Your task to perform on an android device: create a new album in the google photos Image 0: 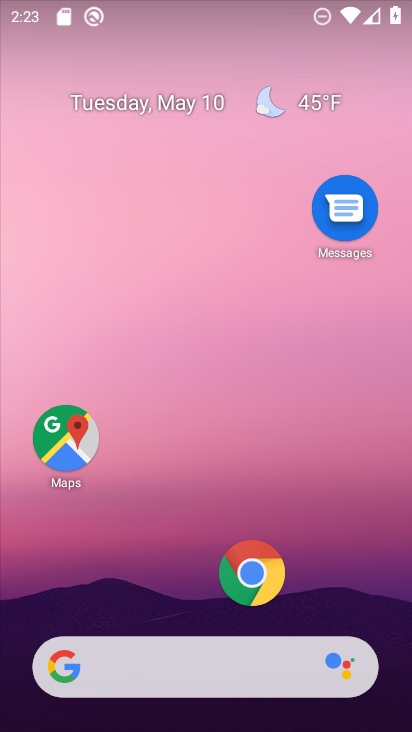
Step 0: drag from (226, 634) to (235, 239)
Your task to perform on an android device: create a new album in the google photos Image 1: 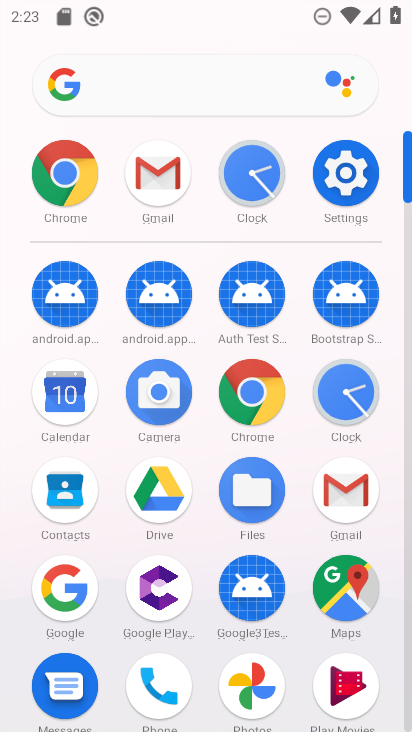
Step 1: drag from (205, 716) to (220, 306)
Your task to perform on an android device: create a new album in the google photos Image 2: 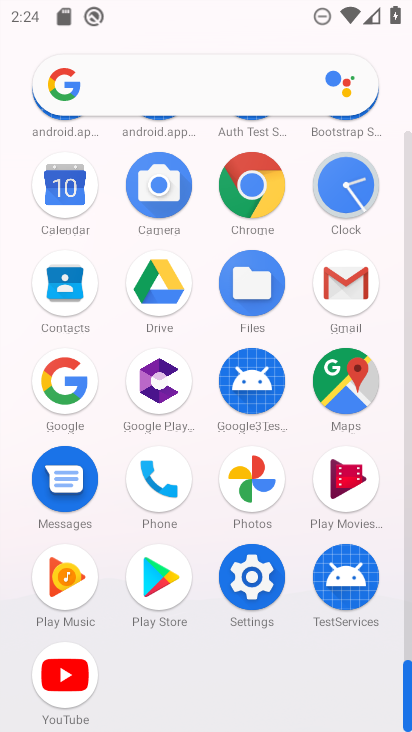
Step 2: click (257, 484)
Your task to perform on an android device: create a new album in the google photos Image 3: 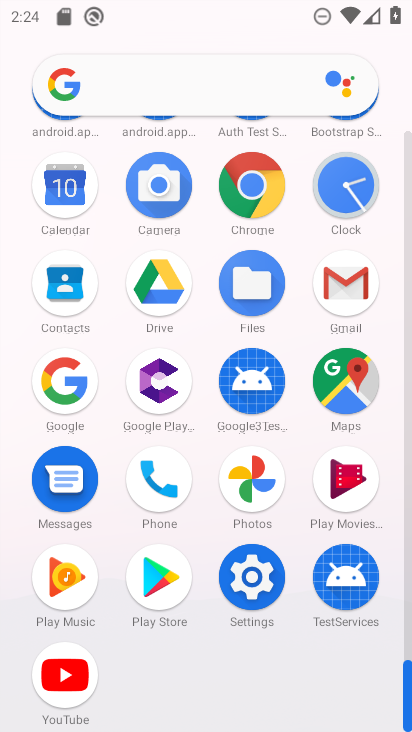
Step 3: click (257, 484)
Your task to perform on an android device: create a new album in the google photos Image 4: 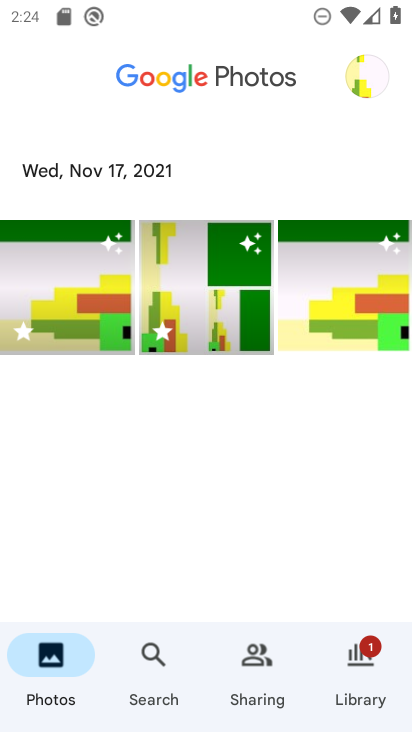
Step 4: click (357, 656)
Your task to perform on an android device: create a new album in the google photos Image 5: 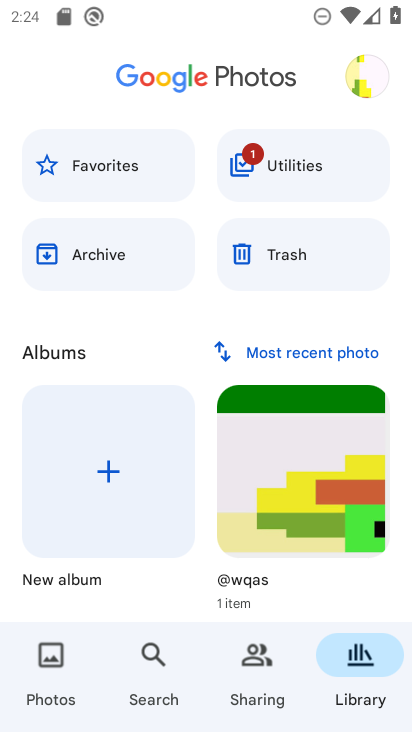
Step 5: click (99, 472)
Your task to perform on an android device: create a new album in the google photos Image 6: 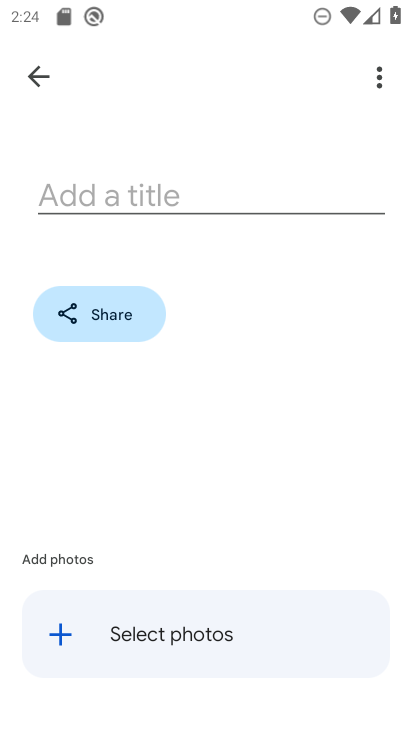
Step 6: click (134, 196)
Your task to perform on an android device: create a new album in the google photos Image 7: 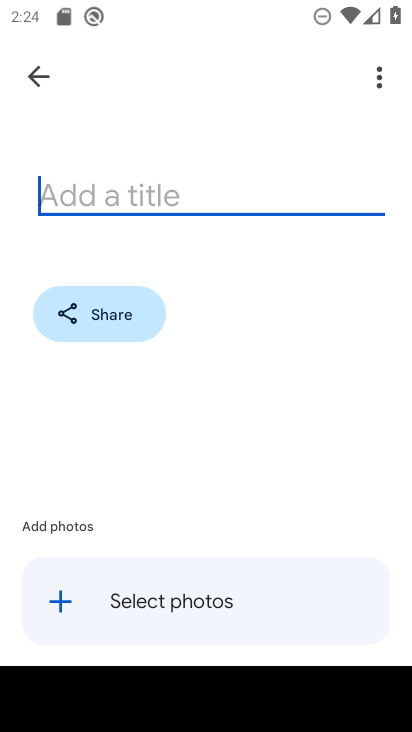
Step 7: type "yhji"
Your task to perform on an android device: create a new album in the google photos Image 8: 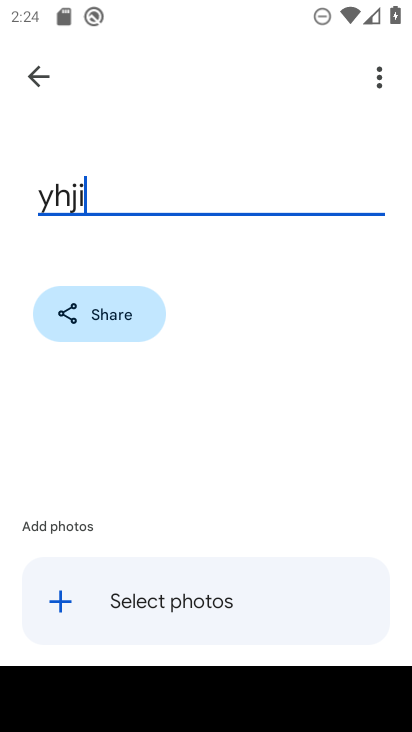
Step 8: click (57, 613)
Your task to perform on an android device: create a new album in the google photos Image 9: 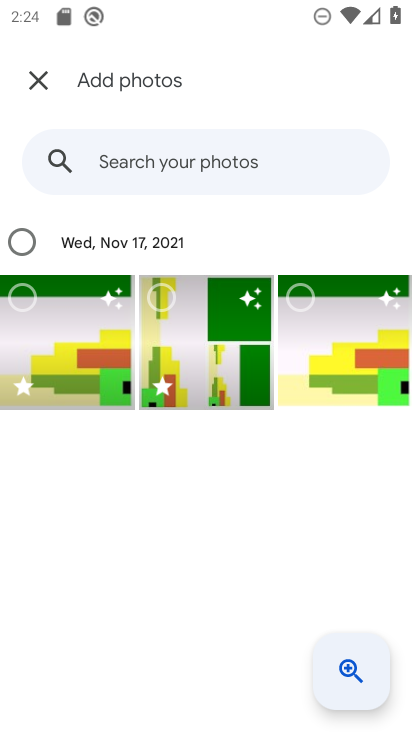
Step 9: click (189, 333)
Your task to perform on an android device: create a new album in the google photos Image 10: 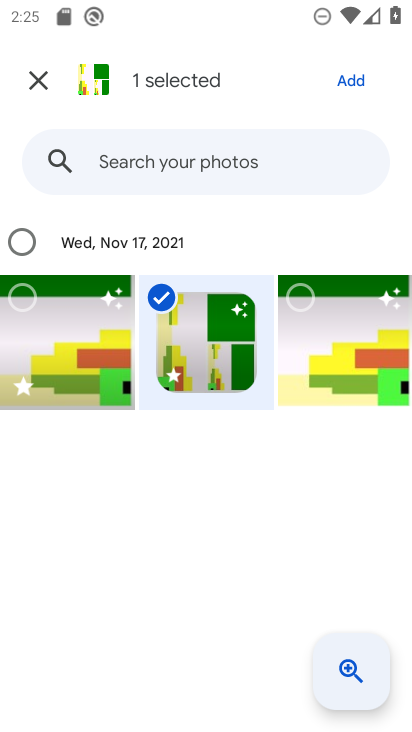
Step 10: click (339, 70)
Your task to perform on an android device: create a new album in the google photos Image 11: 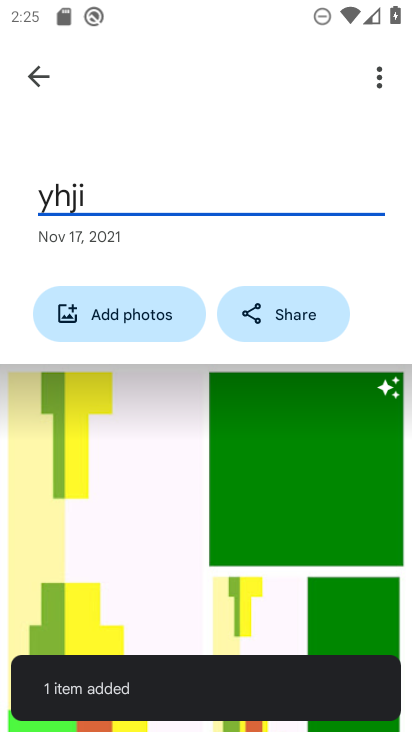
Step 11: task complete